Your task to perform on an android device: open app "Move to iOS" Image 0: 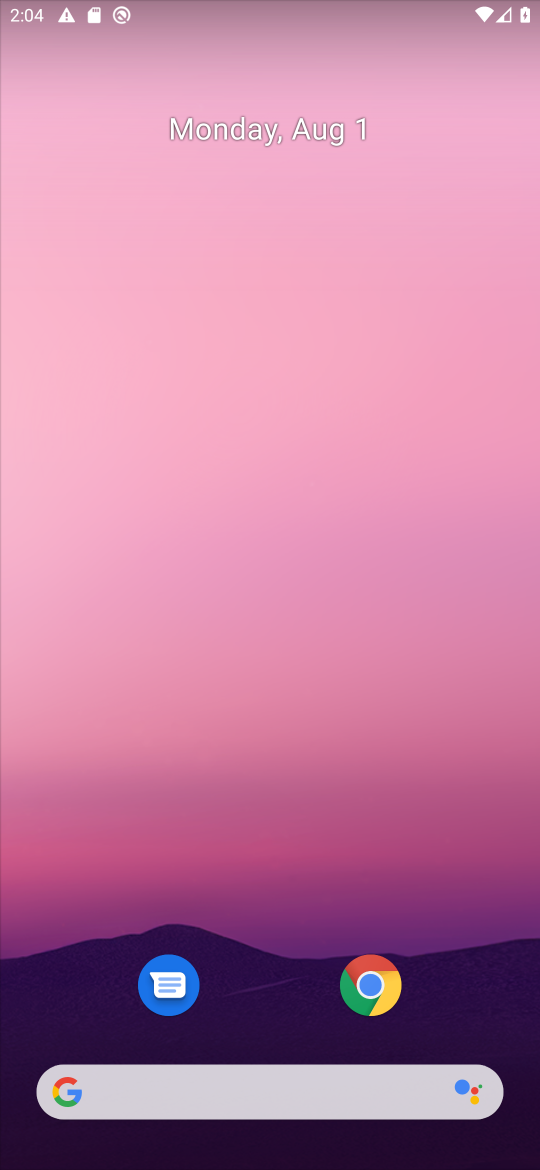
Step 0: drag from (312, 1162) to (286, 130)
Your task to perform on an android device: open app "Move to iOS" Image 1: 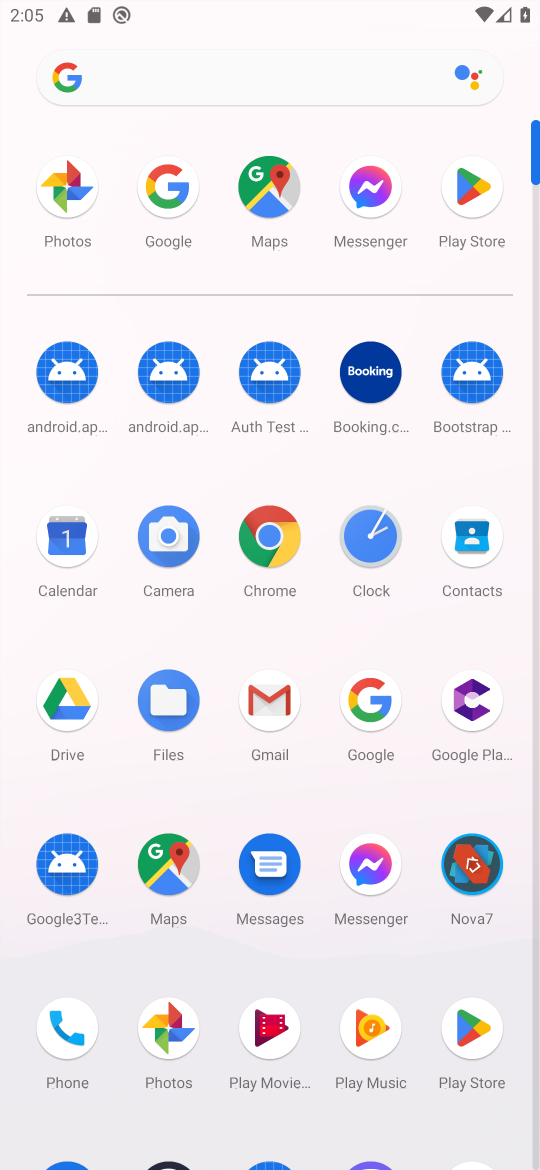
Step 1: drag from (208, 1048) to (191, 499)
Your task to perform on an android device: open app "Move to iOS" Image 2: 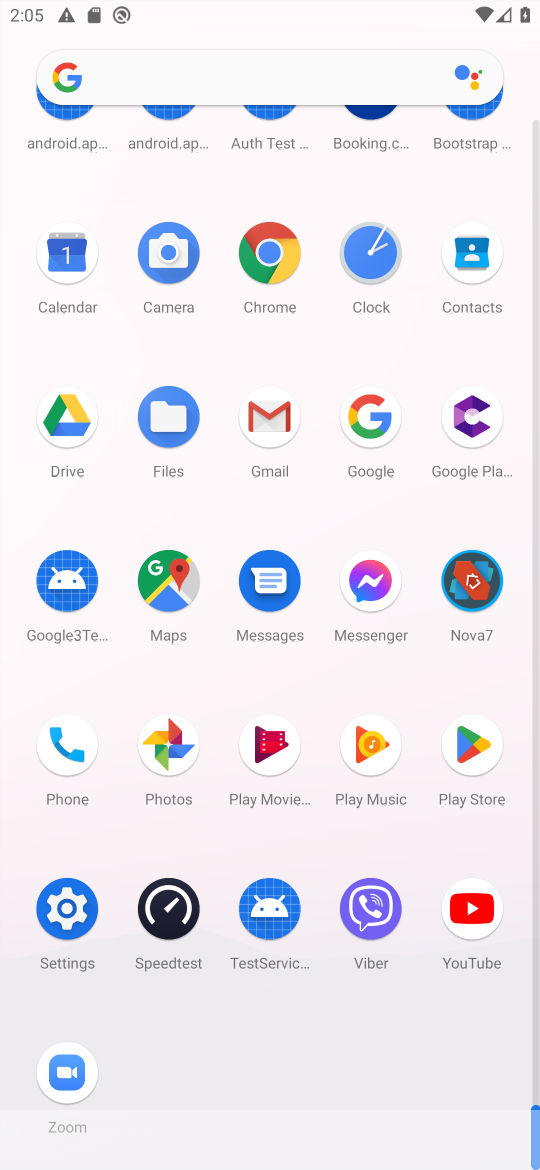
Step 2: click (461, 745)
Your task to perform on an android device: open app "Move to iOS" Image 3: 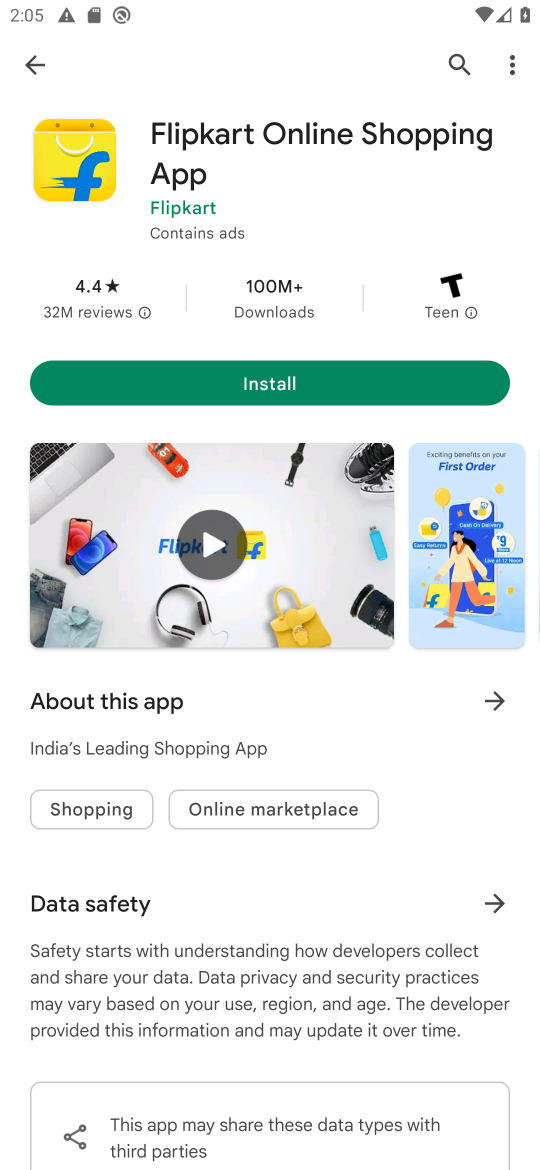
Step 3: click (452, 60)
Your task to perform on an android device: open app "Move to iOS" Image 4: 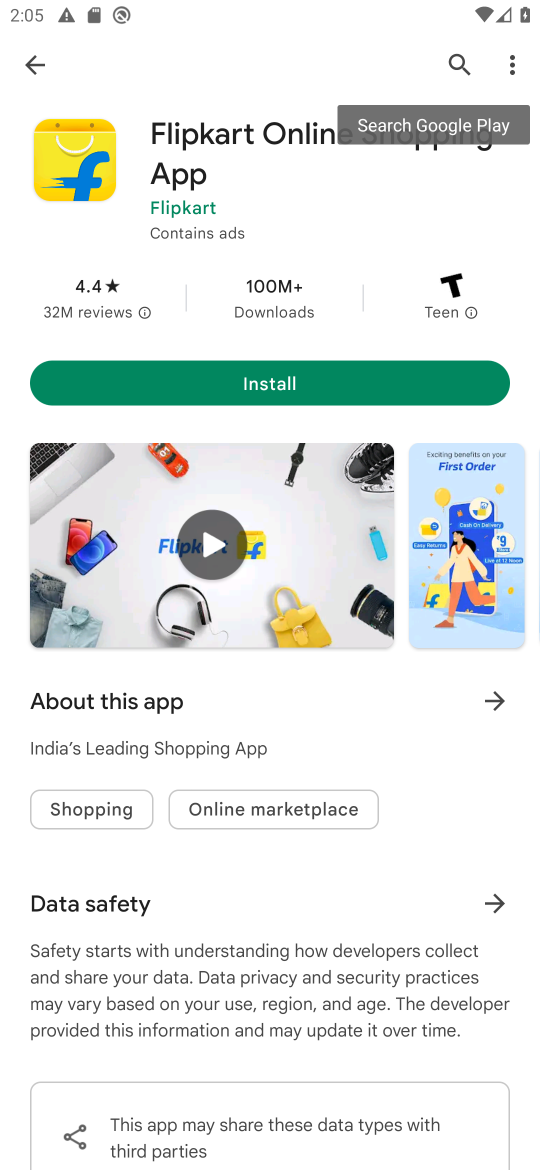
Step 4: click (461, 59)
Your task to perform on an android device: open app "Move to iOS" Image 5: 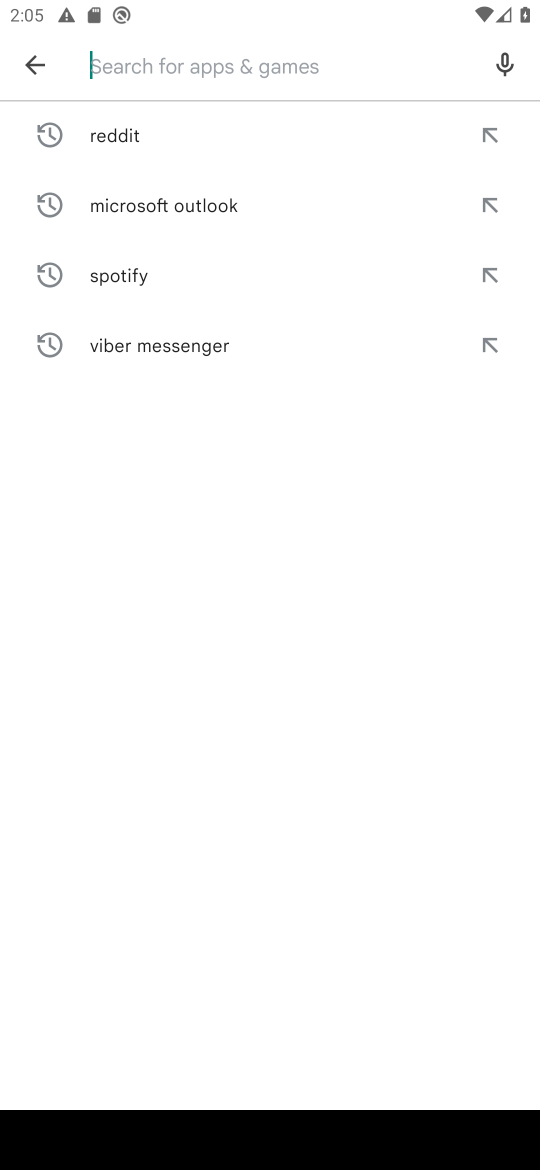
Step 5: type "Move to iOS"
Your task to perform on an android device: open app "Move to iOS" Image 6: 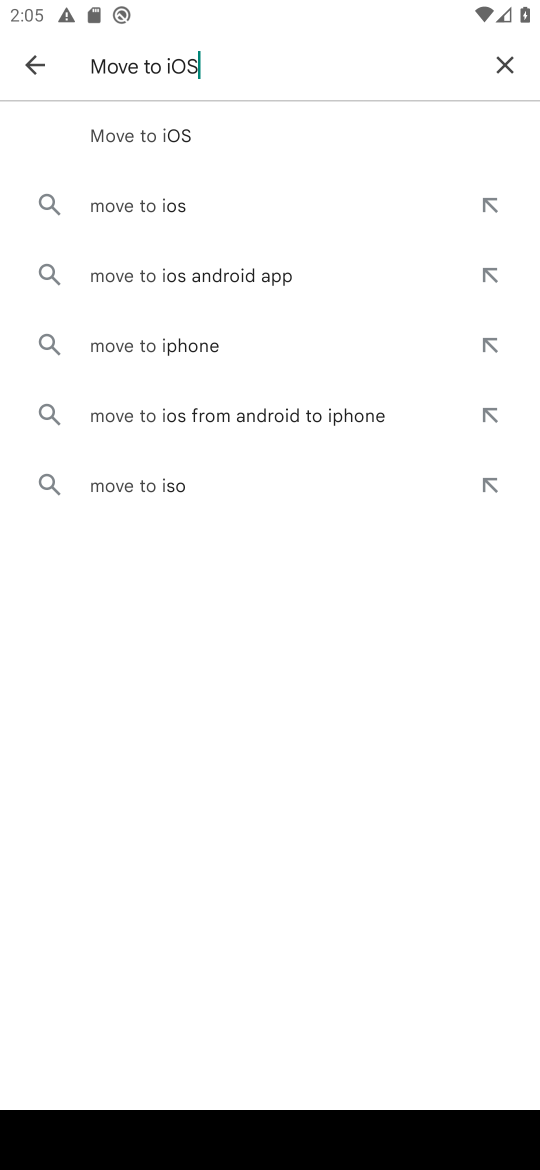
Step 6: type ""
Your task to perform on an android device: open app "Move to iOS" Image 7: 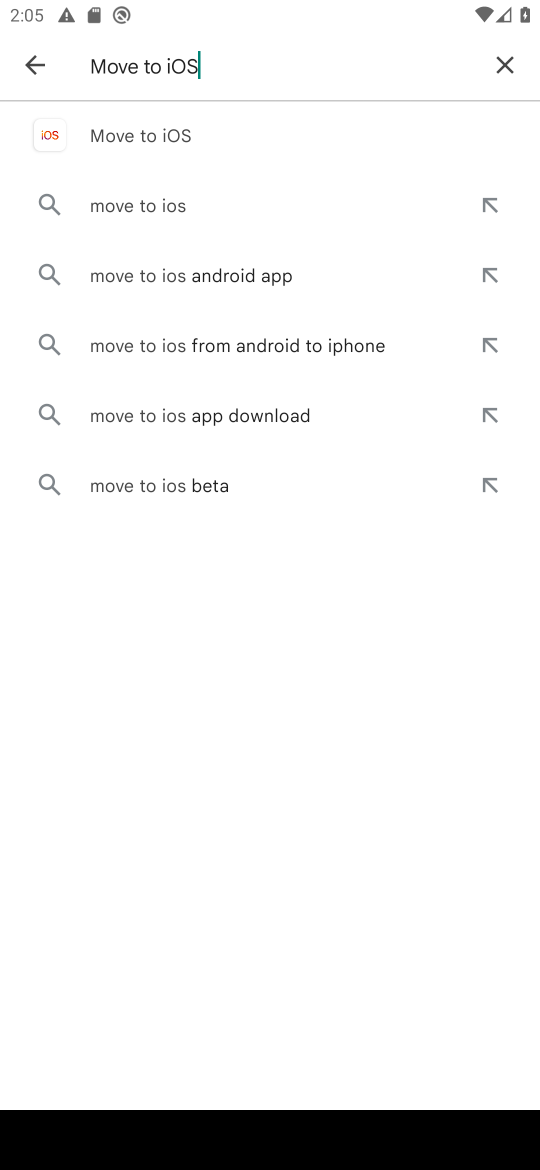
Step 7: click (130, 125)
Your task to perform on an android device: open app "Move to iOS" Image 8: 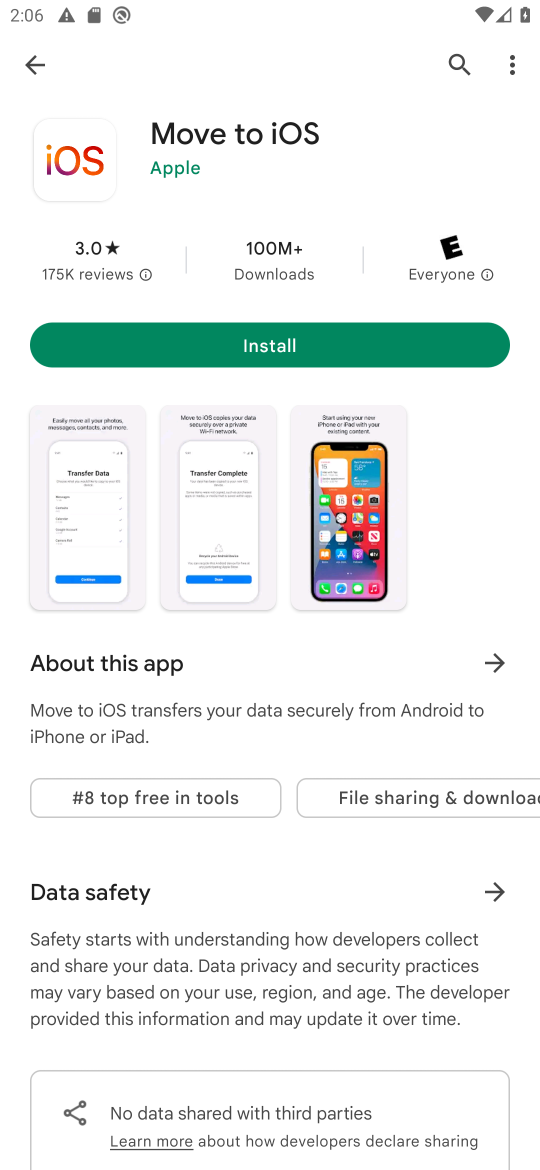
Step 8: task complete